Your task to perform on an android device: Open Maps and search for coffee Image 0: 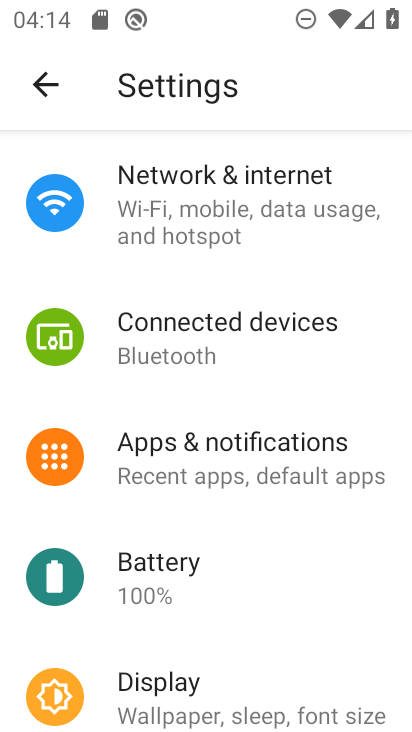
Step 0: press home button
Your task to perform on an android device: Open Maps and search for coffee Image 1: 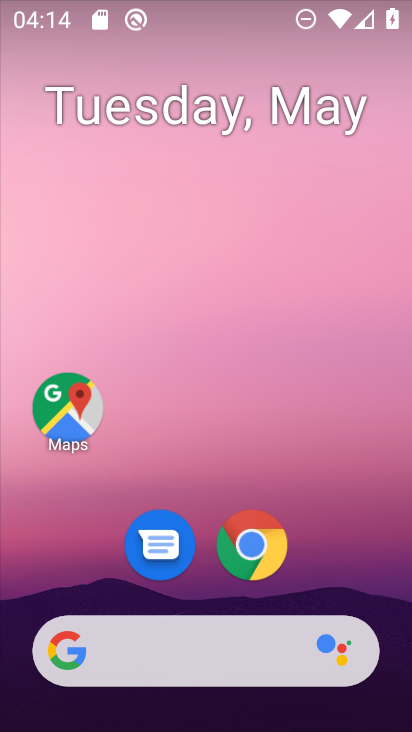
Step 1: click (69, 406)
Your task to perform on an android device: Open Maps and search for coffee Image 2: 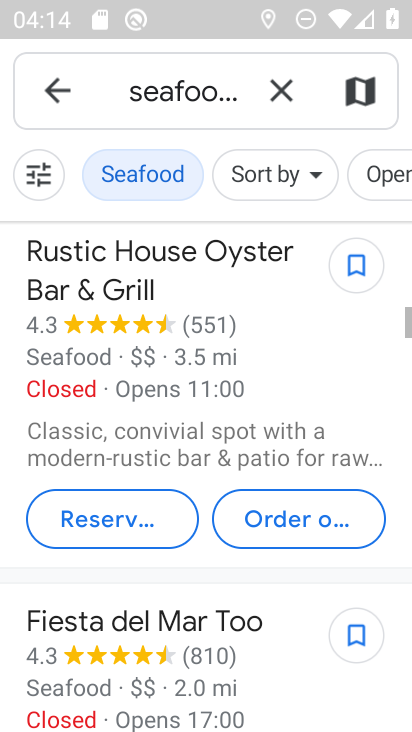
Step 2: click (278, 85)
Your task to perform on an android device: Open Maps and search for coffee Image 3: 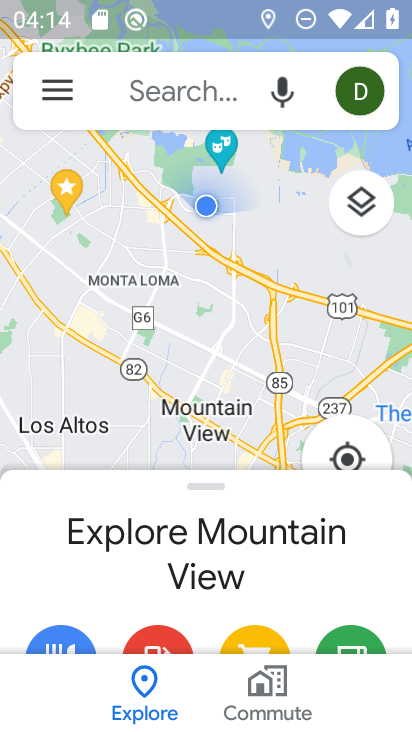
Step 3: click (147, 83)
Your task to perform on an android device: Open Maps and search for coffee Image 4: 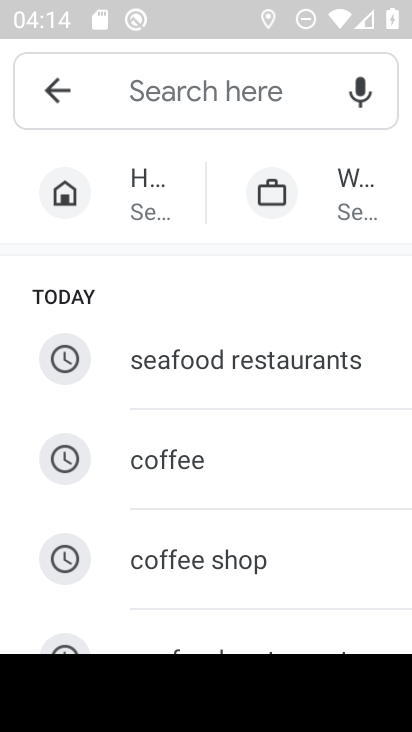
Step 4: type "coffee"
Your task to perform on an android device: Open Maps and search for coffee Image 5: 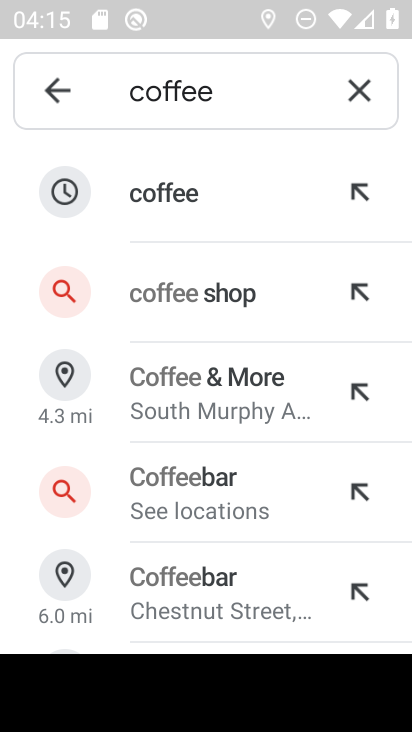
Step 5: click (174, 207)
Your task to perform on an android device: Open Maps and search for coffee Image 6: 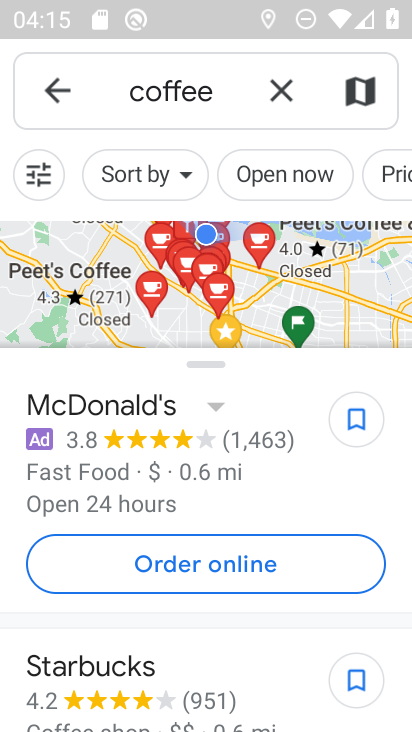
Step 6: task complete